Your task to perform on an android device: Is it going to rain today? Image 0: 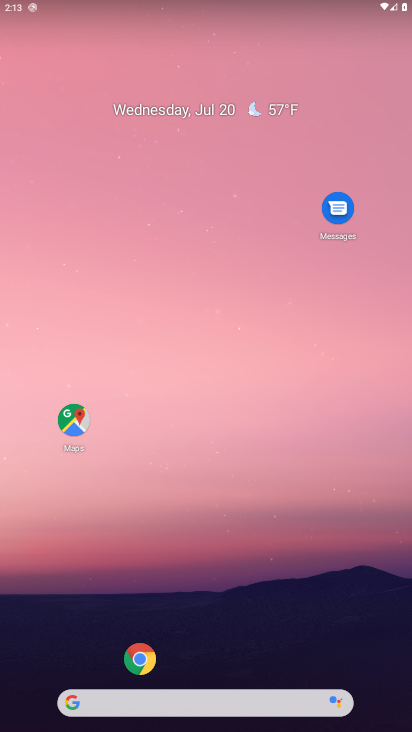
Step 0: click (143, 695)
Your task to perform on an android device: Is it going to rain today? Image 1: 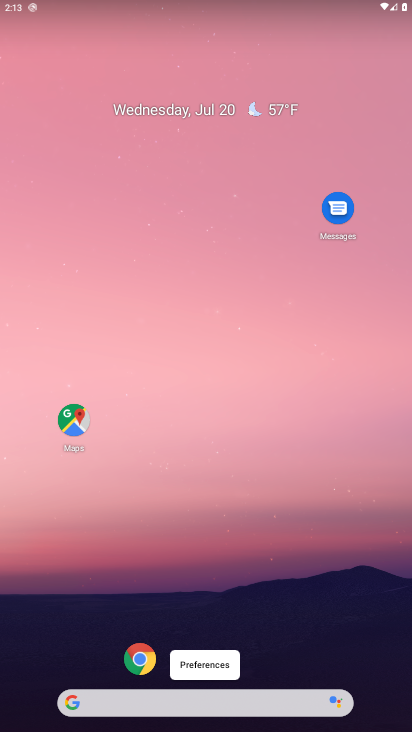
Step 1: click (149, 708)
Your task to perform on an android device: Is it going to rain today? Image 2: 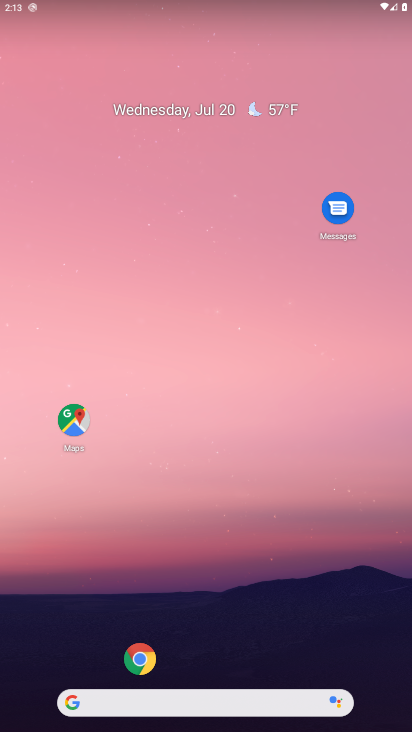
Step 2: click (151, 700)
Your task to perform on an android device: Is it going to rain today? Image 3: 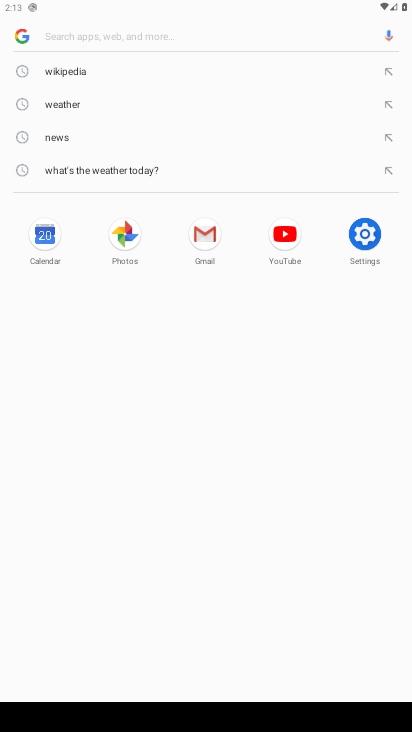
Step 3: type "Is it going to rain today?"
Your task to perform on an android device: Is it going to rain today? Image 4: 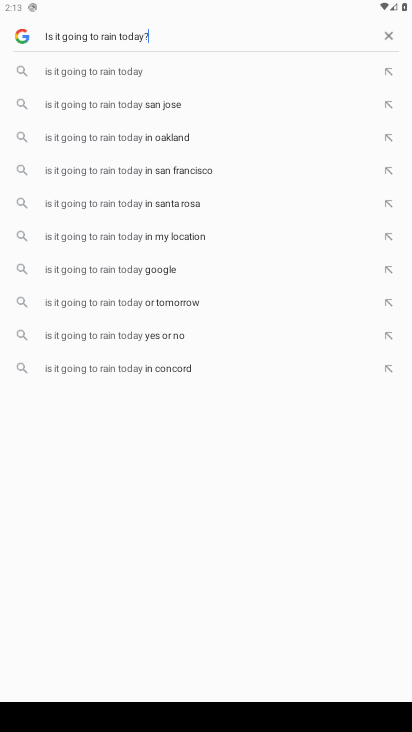
Step 4: type ""
Your task to perform on an android device: Is it going to rain today? Image 5: 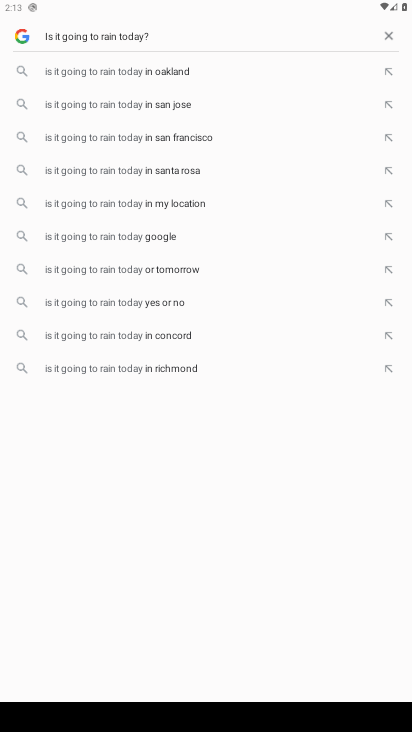
Step 5: type ""
Your task to perform on an android device: Is it going to rain today? Image 6: 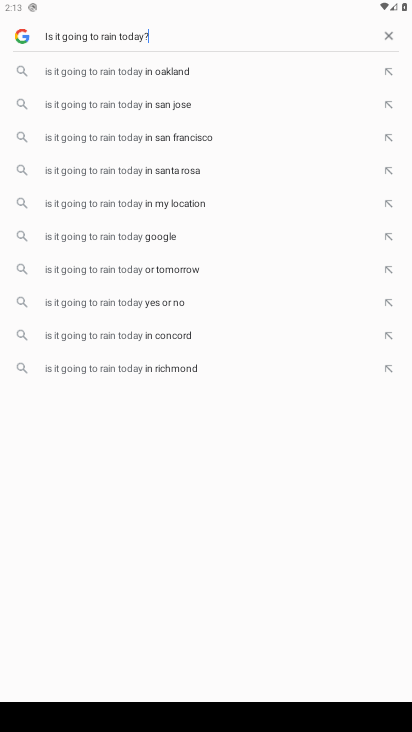
Step 6: type ""
Your task to perform on an android device: Is it going to rain today? Image 7: 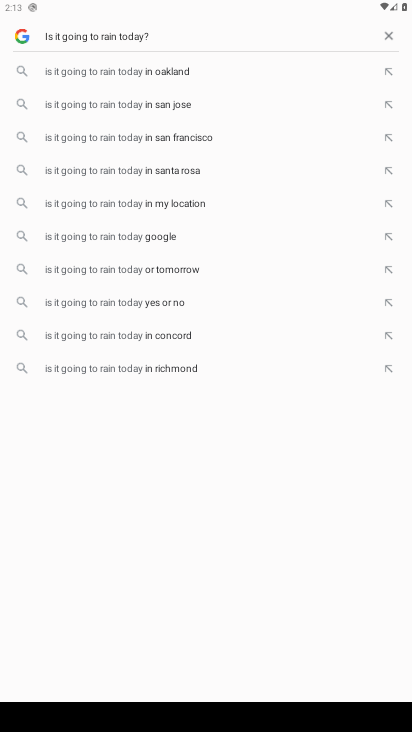
Step 7: type ""
Your task to perform on an android device: Is it going to rain today? Image 8: 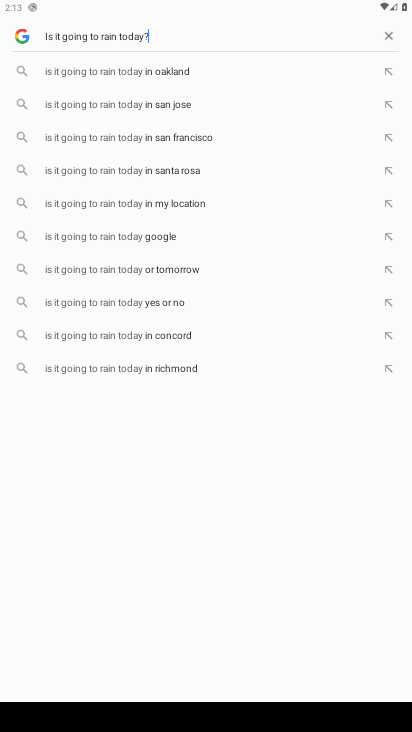
Step 8: task complete